Your task to perform on an android device: Open battery settings Image 0: 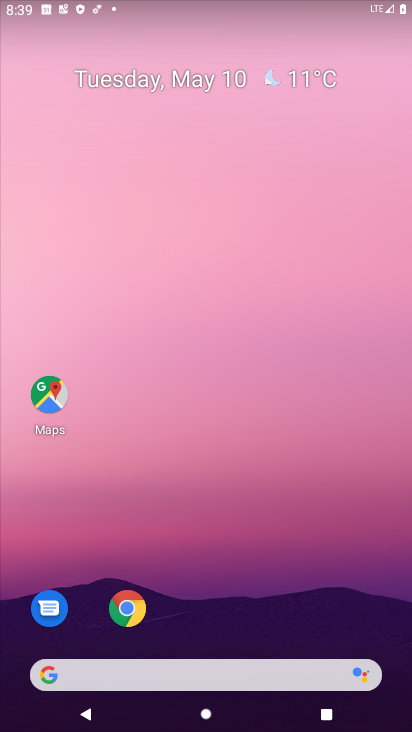
Step 0: drag from (192, 672) to (274, 170)
Your task to perform on an android device: Open battery settings Image 1: 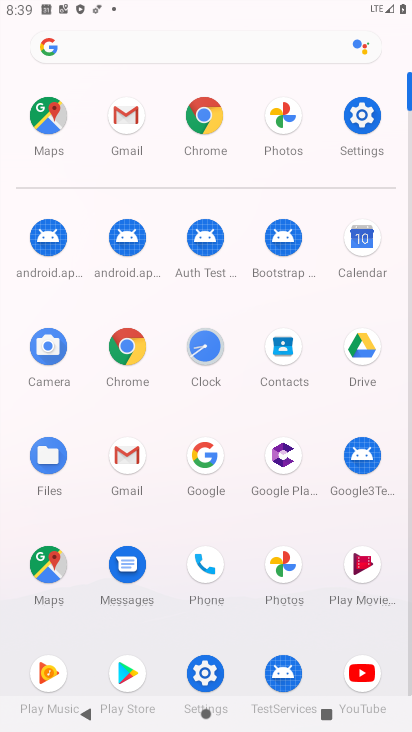
Step 1: click (370, 124)
Your task to perform on an android device: Open battery settings Image 2: 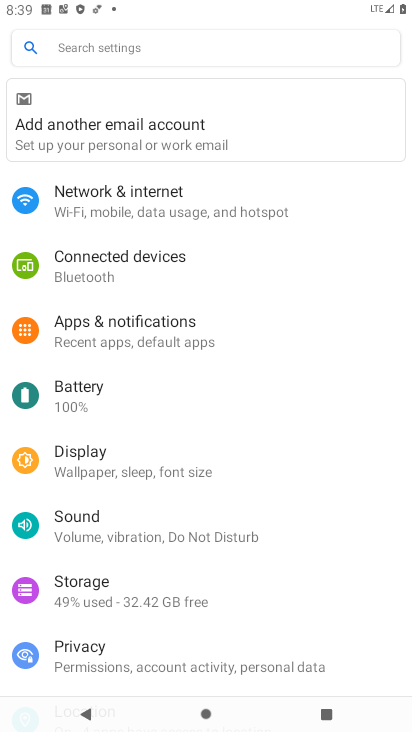
Step 2: click (96, 399)
Your task to perform on an android device: Open battery settings Image 3: 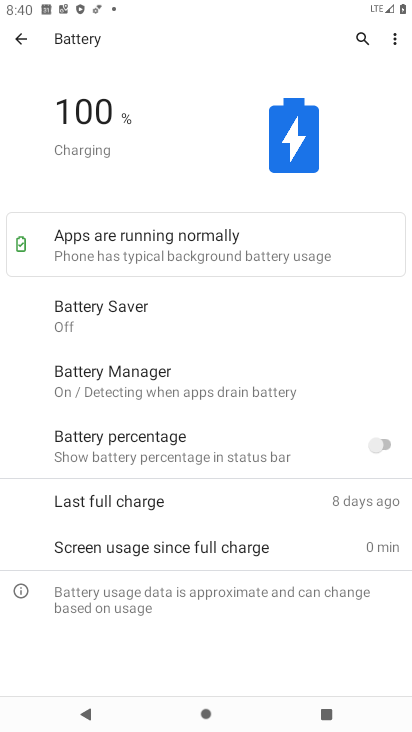
Step 3: task complete